Your task to perform on an android device: remove spam from my inbox in the gmail app Image 0: 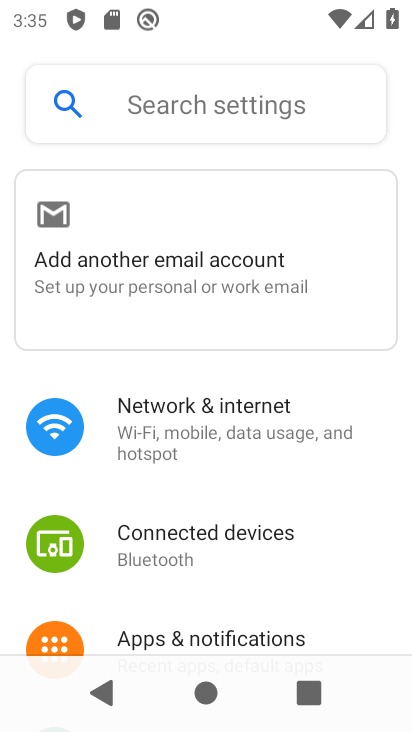
Step 0: press home button
Your task to perform on an android device: remove spam from my inbox in the gmail app Image 1: 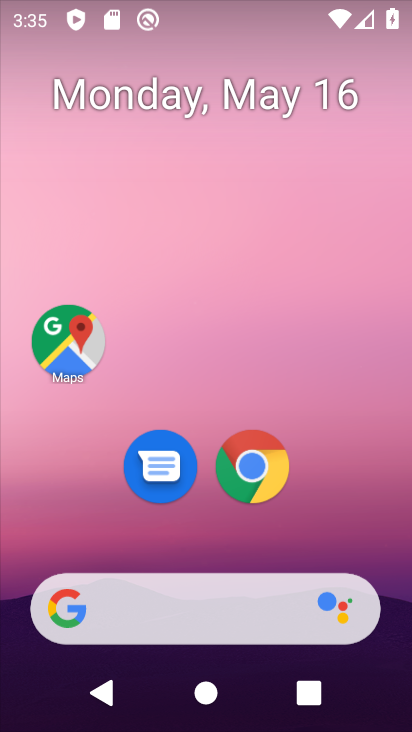
Step 1: drag from (274, 665) to (357, 77)
Your task to perform on an android device: remove spam from my inbox in the gmail app Image 2: 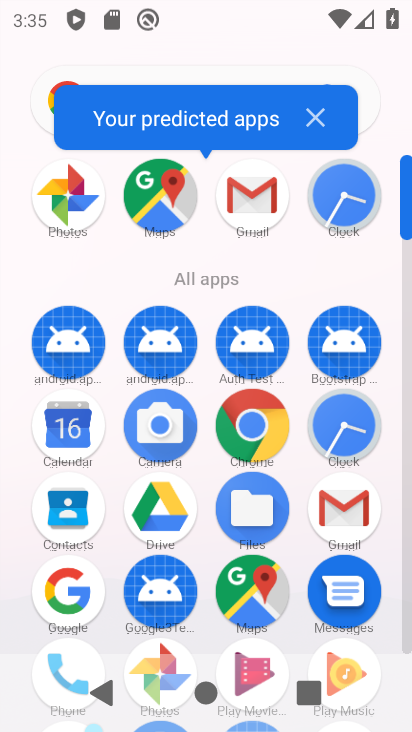
Step 2: click (345, 509)
Your task to perform on an android device: remove spam from my inbox in the gmail app Image 3: 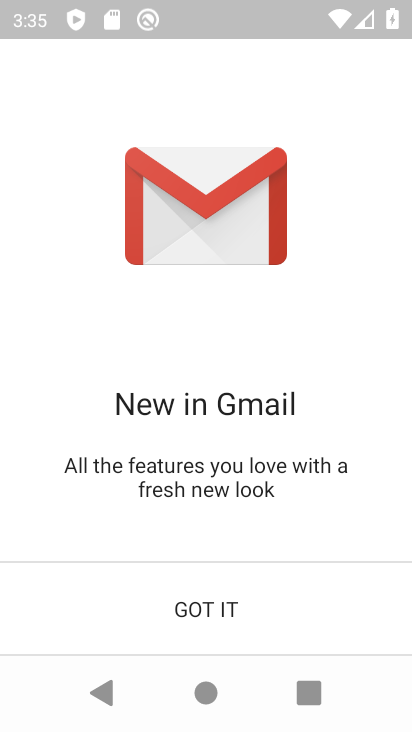
Step 3: click (169, 616)
Your task to perform on an android device: remove spam from my inbox in the gmail app Image 4: 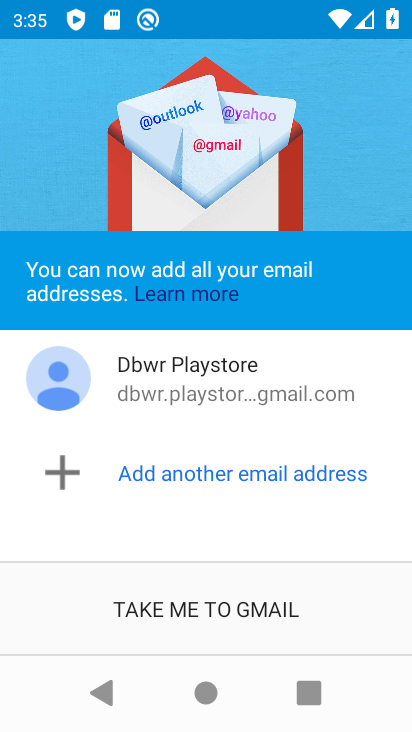
Step 4: click (226, 599)
Your task to perform on an android device: remove spam from my inbox in the gmail app Image 5: 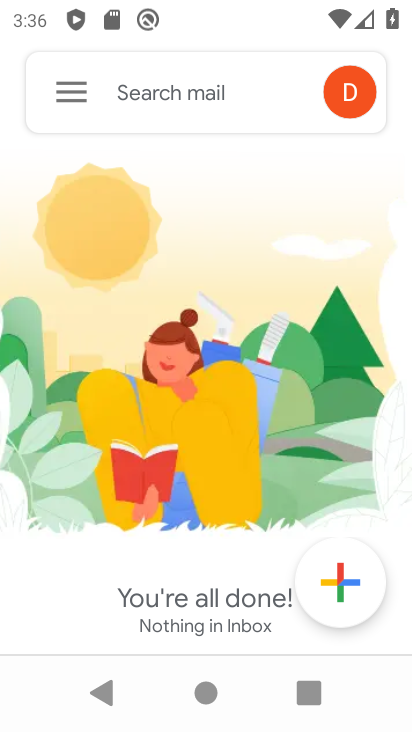
Step 5: click (81, 100)
Your task to perform on an android device: remove spam from my inbox in the gmail app Image 6: 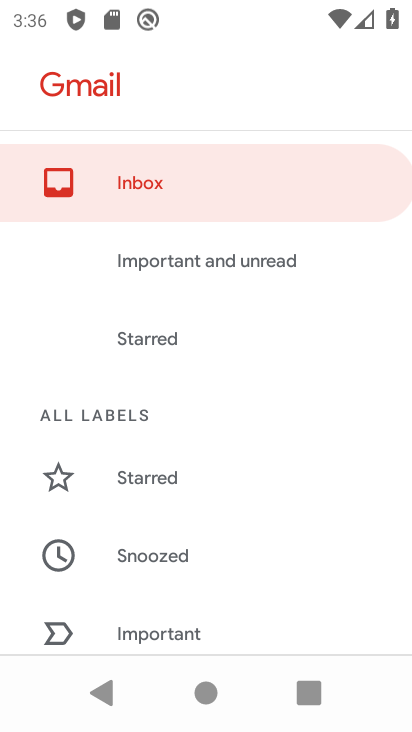
Step 6: drag from (145, 556) to (306, 300)
Your task to perform on an android device: remove spam from my inbox in the gmail app Image 7: 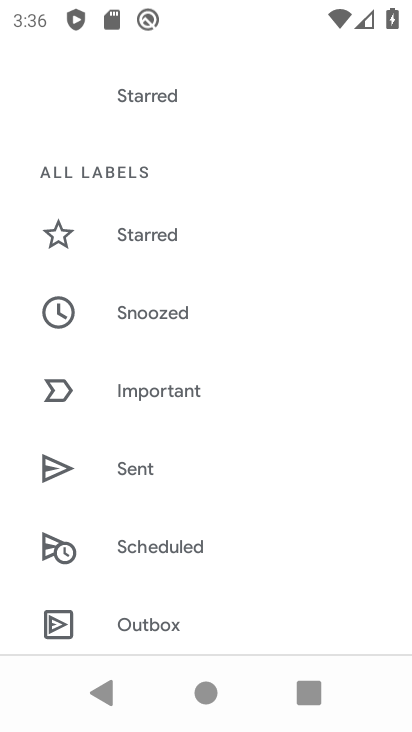
Step 7: drag from (194, 572) to (293, 287)
Your task to perform on an android device: remove spam from my inbox in the gmail app Image 8: 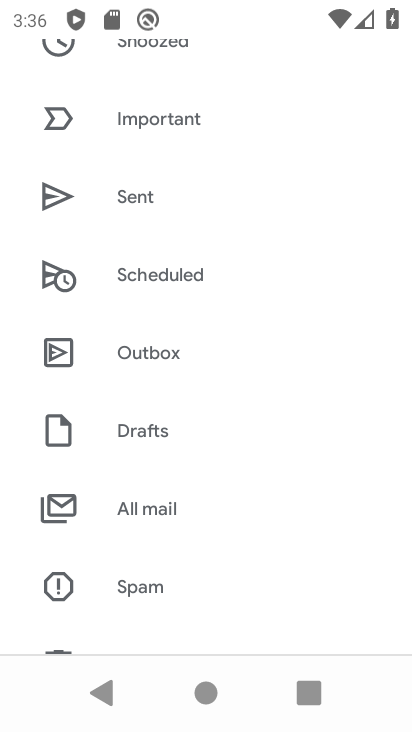
Step 8: drag from (212, 532) to (351, 340)
Your task to perform on an android device: remove spam from my inbox in the gmail app Image 9: 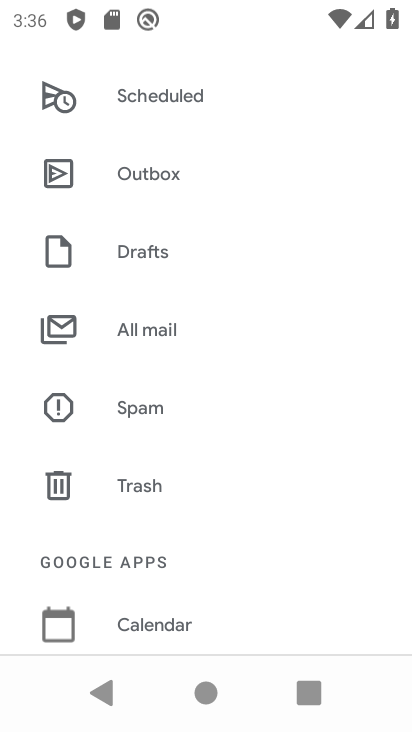
Step 9: click (183, 403)
Your task to perform on an android device: remove spam from my inbox in the gmail app Image 10: 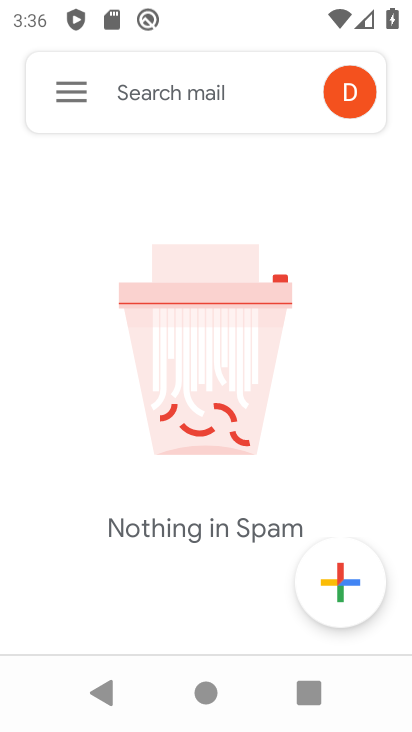
Step 10: task complete